Your task to perform on an android device: Go to wifi settings Image 0: 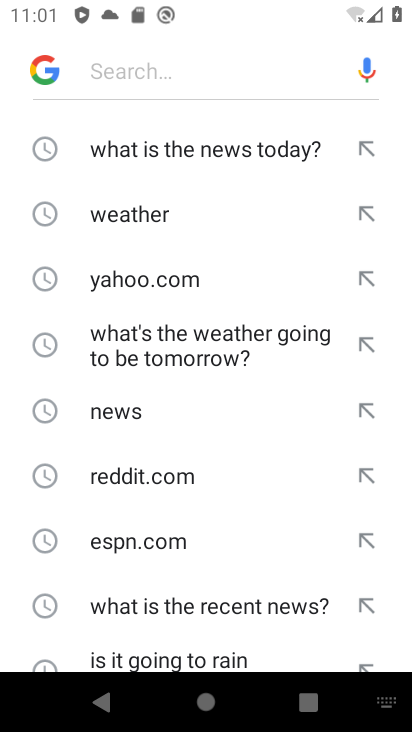
Step 0: press home button
Your task to perform on an android device: Go to wifi settings Image 1: 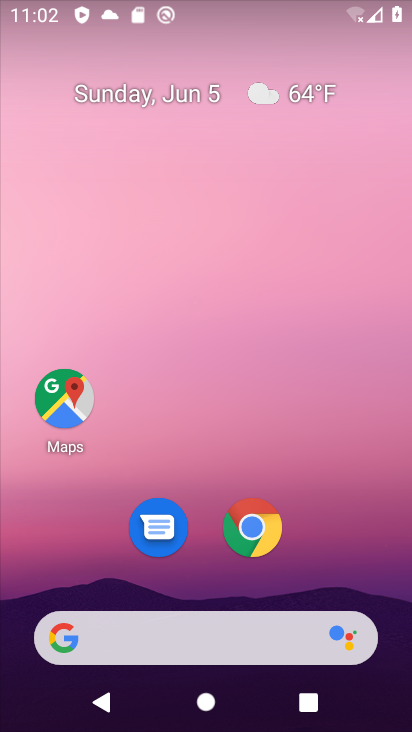
Step 1: press home button
Your task to perform on an android device: Go to wifi settings Image 2: 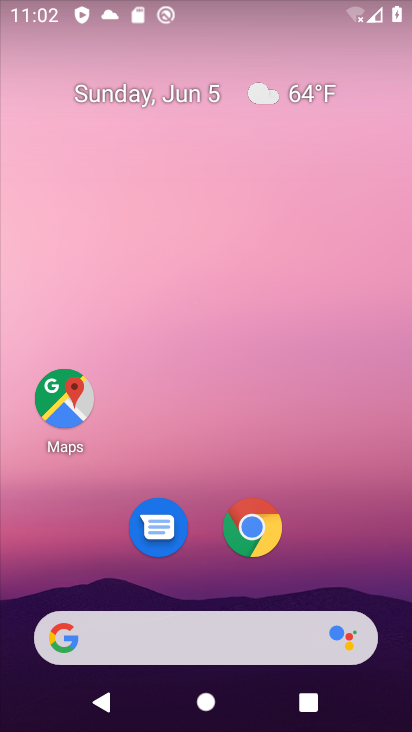
Step 2: drag from (332, 558) to (320, 141)
Your task to perform on an android device: Go to wifi settings Image 3: 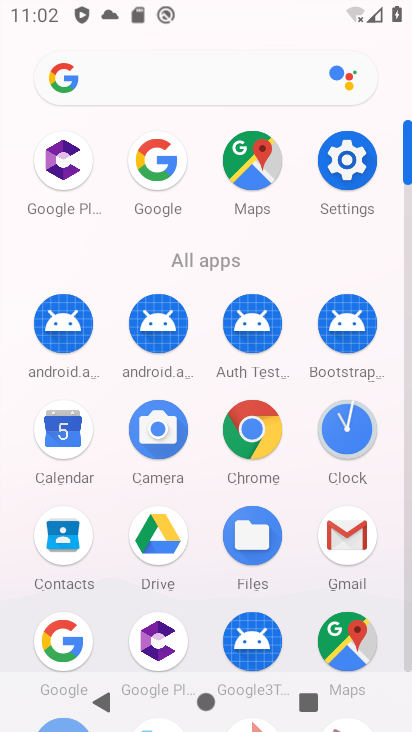
Step 3: click (334, 151)
Your task to perform on an android device: Go to wifi settings Image 4: 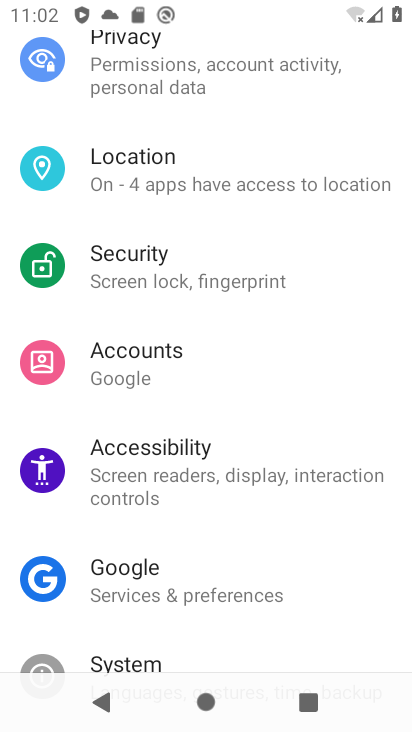
Step 4: drag from (357, 96) to (392, 383)
Your task to perform on an android device: Go to wifi settings Image 5: 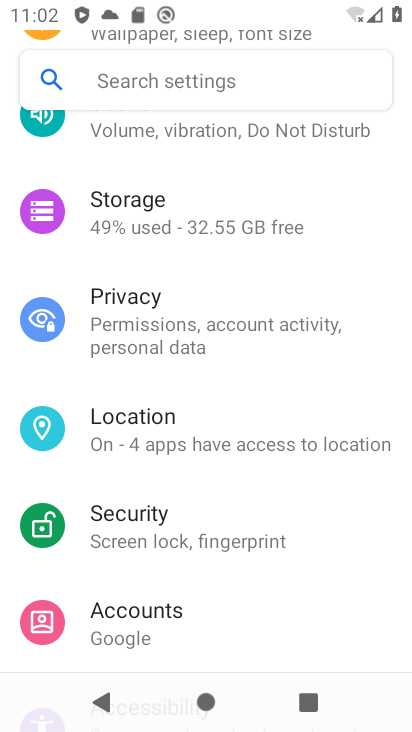
Step 5: drag from (325, 203) to (358, 501)
Your task to perform on an android device: Go to wifi settings Image 6: 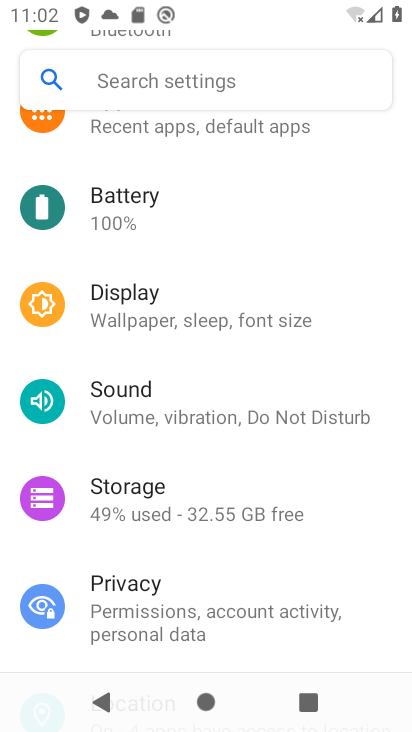
Step 6: drag from (367, 169) to (296, 572)
Your task to perform on an android device: Go to wifi settings Image 7: 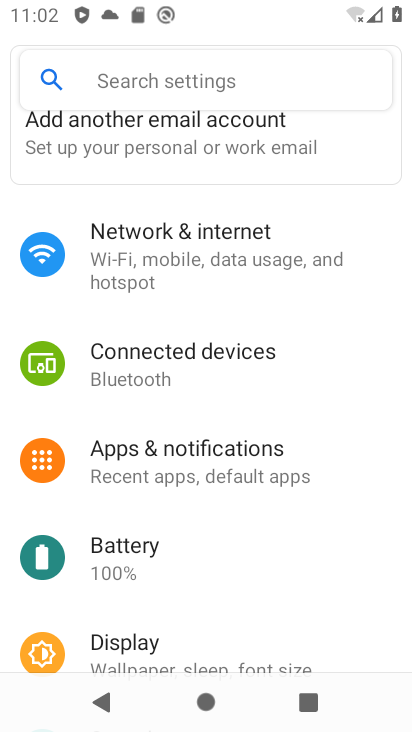
Step 7: click (228, 235)
Your task to perform on an android device: Go to wifi settings Image 8: 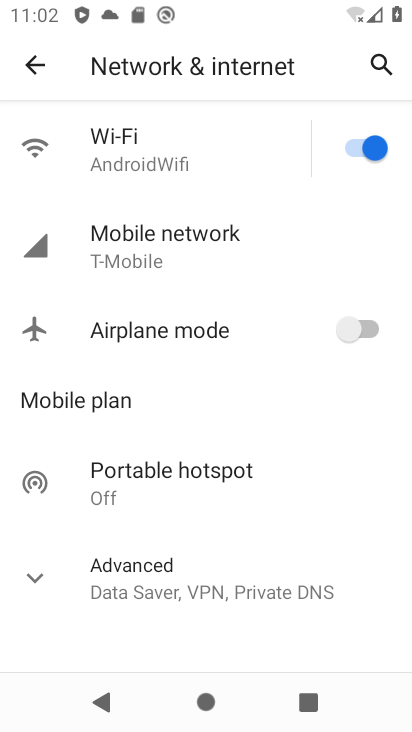
Step 8: task complete